Your task to perform on an android device: Show the shopping cart on bestbuy. Search for razer kraken on bestbuy, select the first entry, and add it to the cart. Image 0: 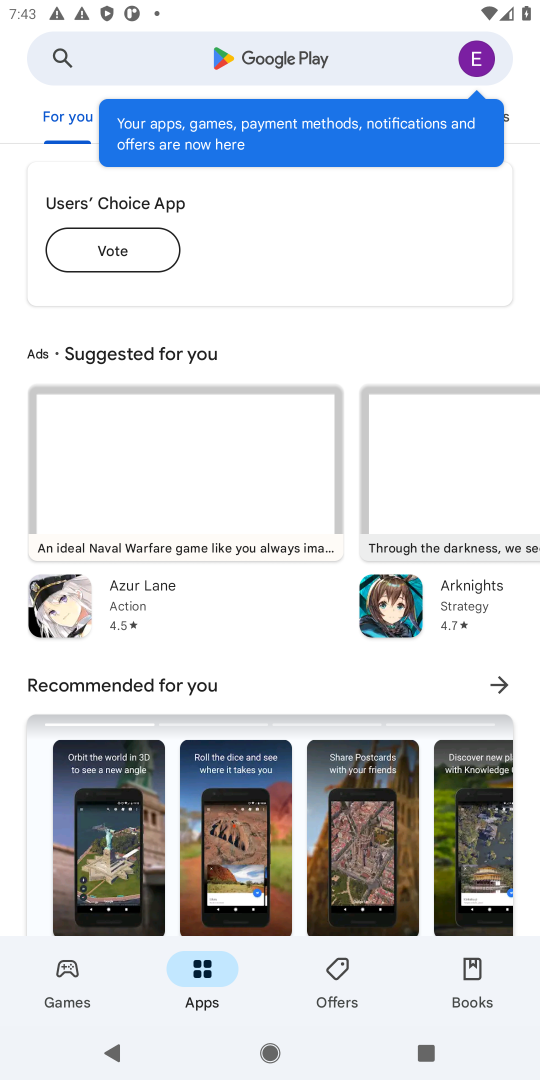
Step 0: press home button
Your task to perform on an android device: Show the shopping cart on bestbuy. Search for razer kraken on bestbuy, select the first entry, and add it to the cart. Image 1: 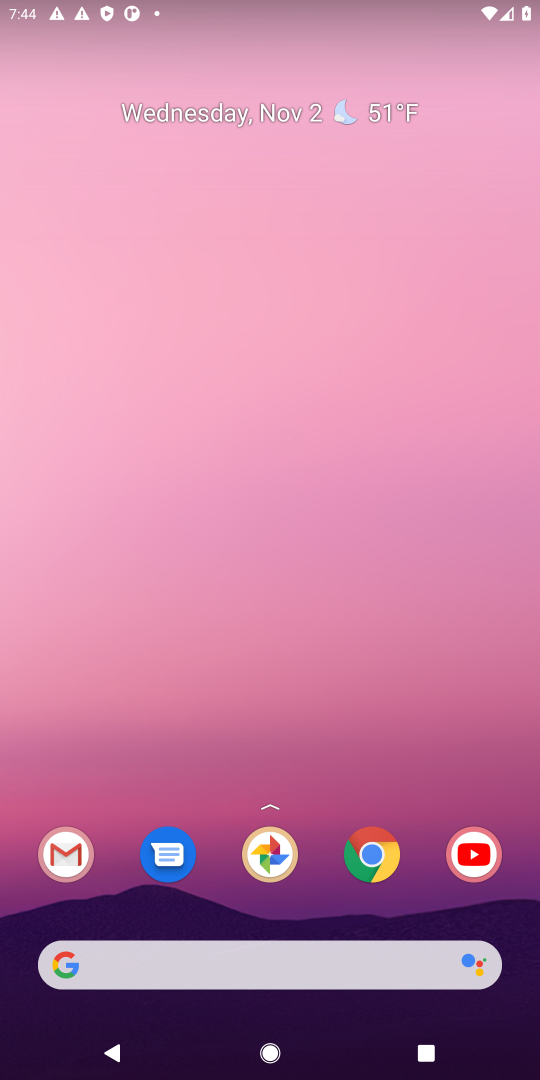
Step 1: click (374, 849)
Your task to perform on an android device: Show the shopping cart on bestbuy. Search for razer kraken on bestbuy, select the first entry, and add it to the cart. Image 2: 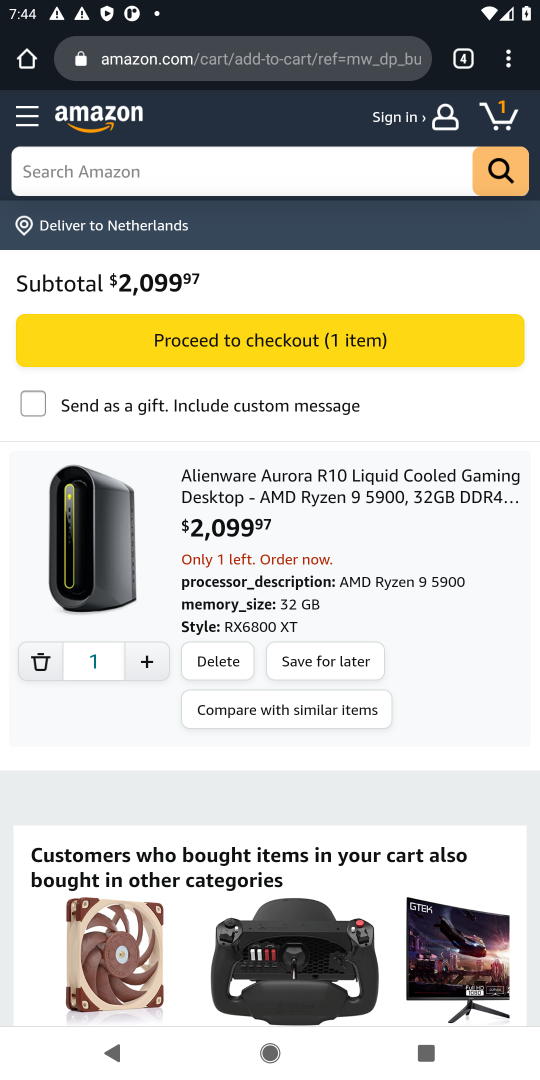
Step 2: click (462, 62)
Your task to perform on an android device: Show the shopping cart on bestbuy. Search for razer kraken on bestbuy, select the first entry, and add it to the cart. Image 3: 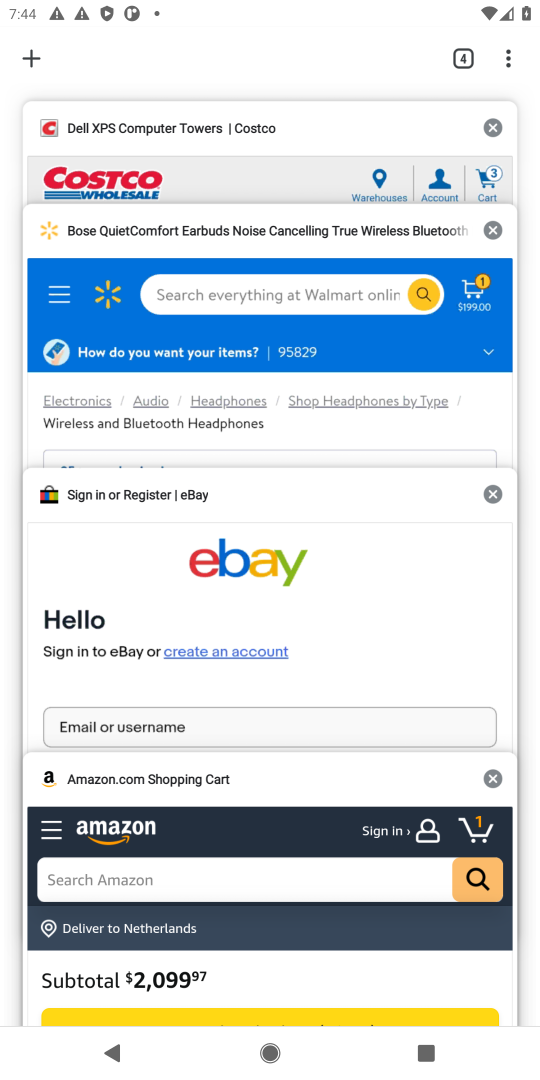
Step 3: click (27, 54)
Your task to perform on an android device: Show the shopping cart on bestbuy. Search for razer kraken on bestbuy, select the first entry, and add it to the cart. Image 4: 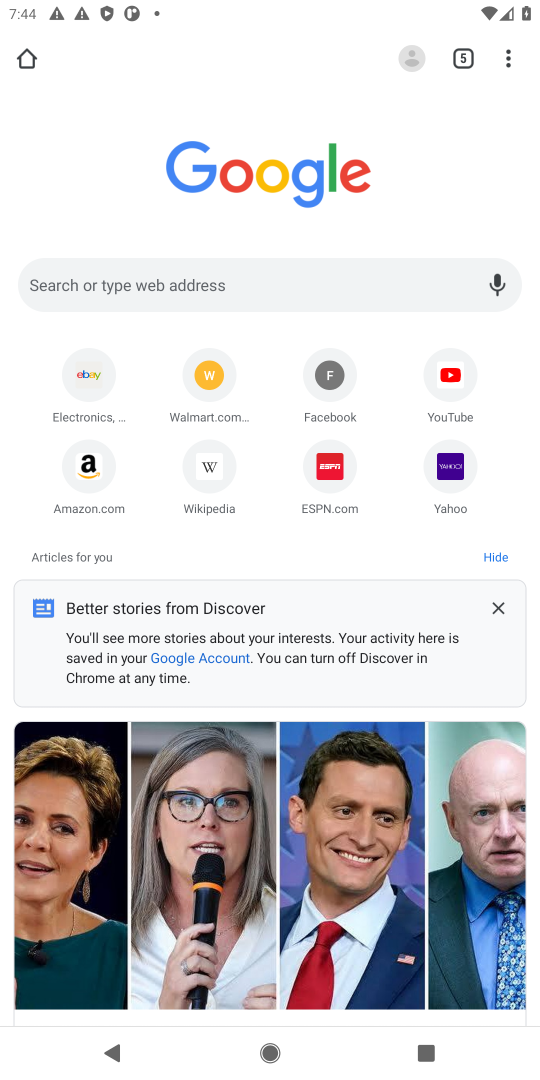
Step 4: click (258, 270)
Your task to perform on an android device: Show the shopping cart on bestbuy. Search for razer kraken on bestbuy, select the first entry, and add it to the cart. Image 5: 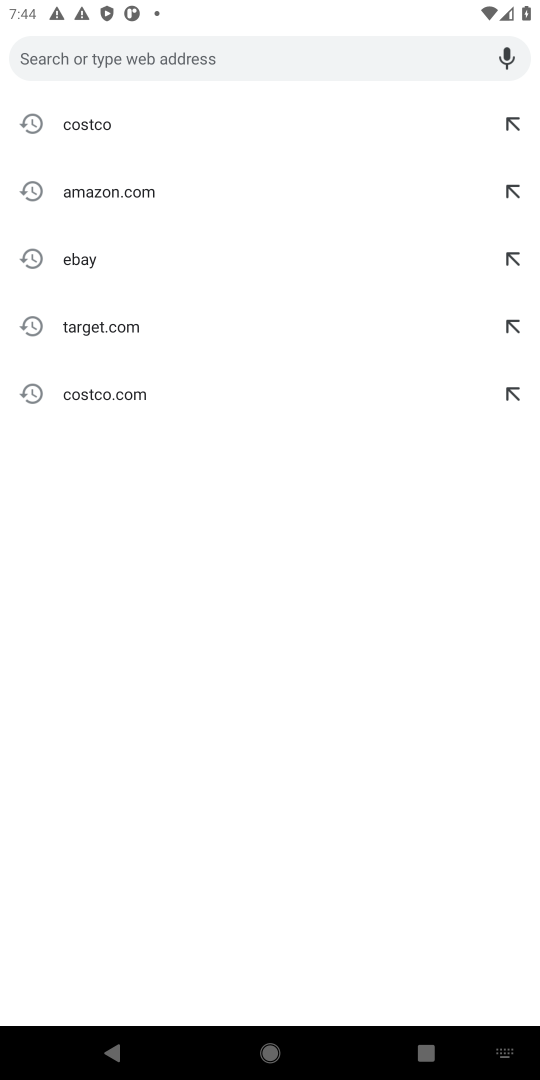
Step 5: type "bestbuy"
Your task to perform on an android device: Show the shopping cart on bestbuy. Search for razer kraken on bestbuy, select the first entry, and add it to the cart. Image 6: 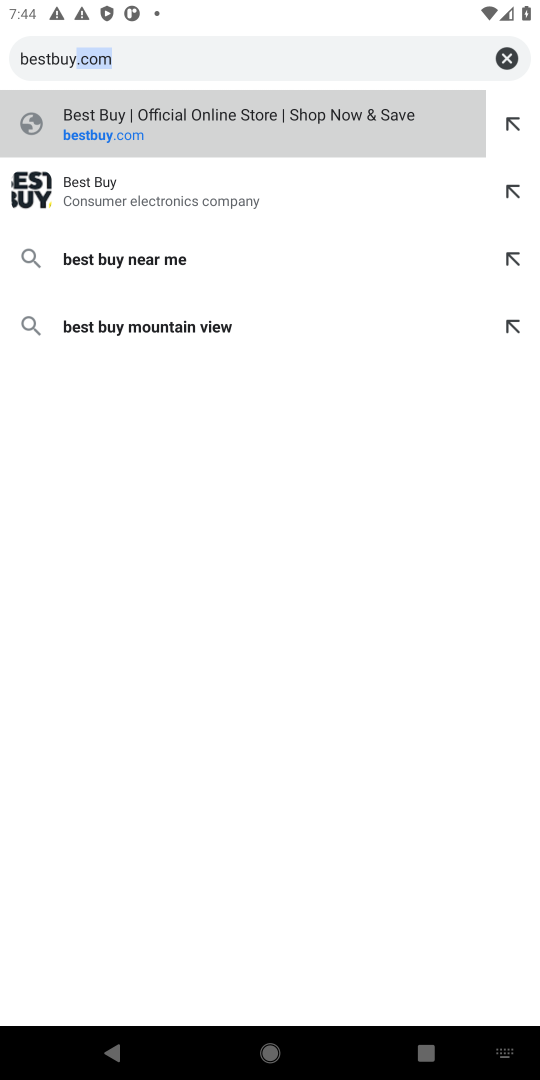
Step 6: click (83, 120)
Your task to perform on an android device: Show the shopping cart on bestbuy. Search for razer kraken on bestbuy, select the first entry, and add it to the cart. Image 7: 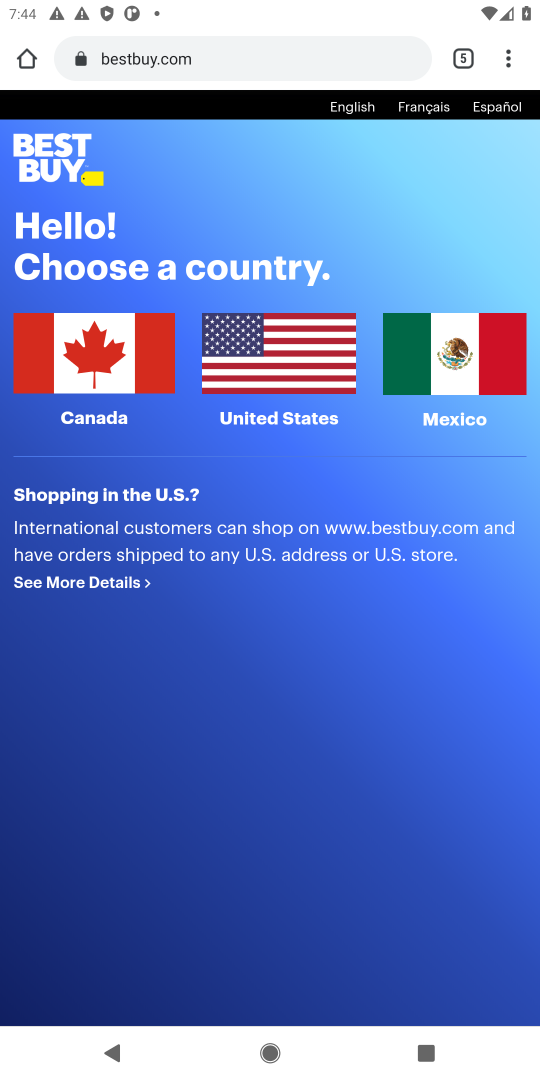
Step 7: click (285, 368)
Your task to perform on an android device: Show the shopping cart on bestbuy. Search for razer kraken on bestbuy, select the first entry, and add it to the cart. Image 8: 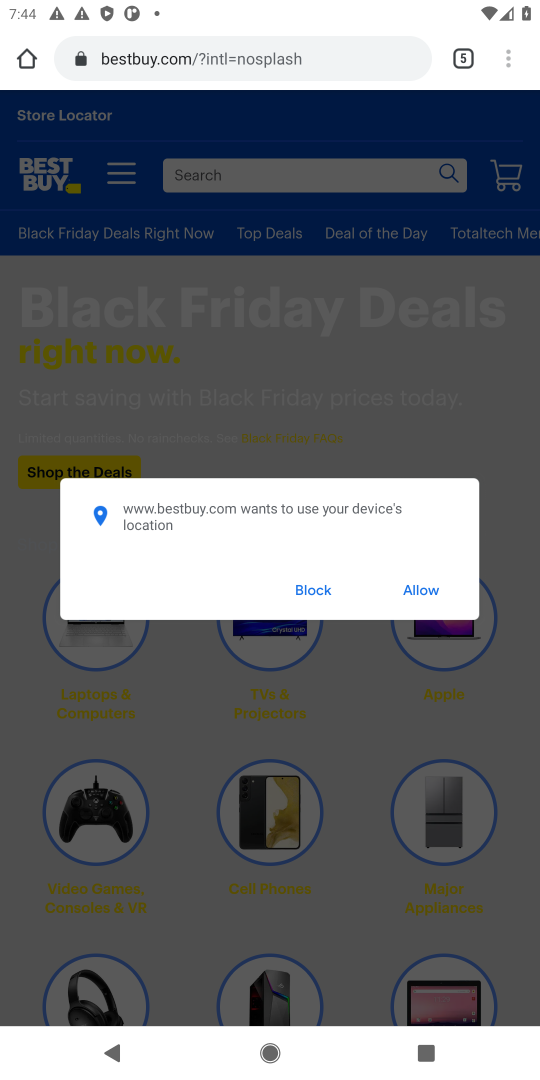
Step 8: click (305, 589)
Your task to perform on an android device: Show the shopping cart on bestbuy. Search for razer kraken on bestbuy, select the first entry, and add it to the cart. Image 9: 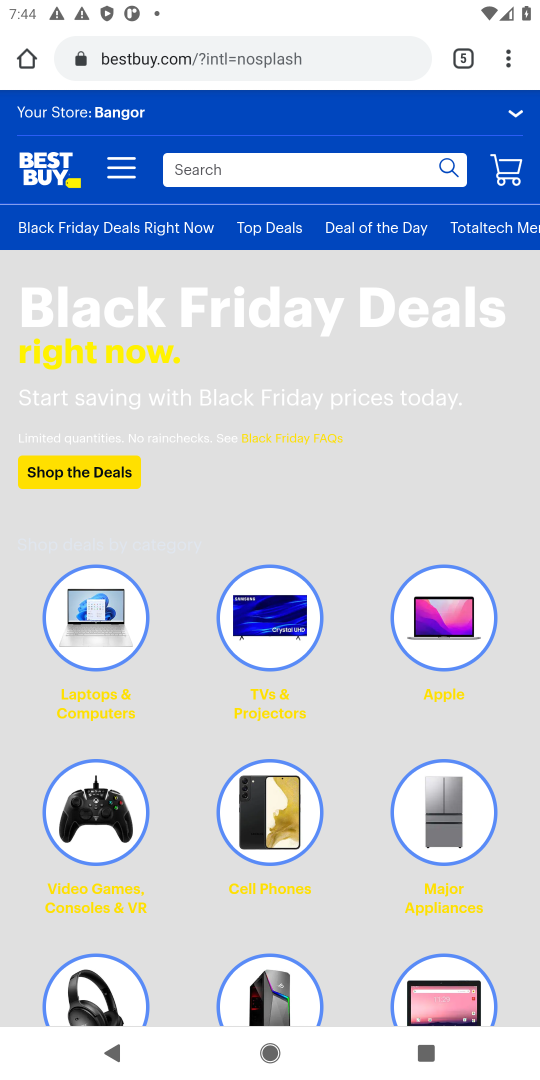
Step 9: click (307, 171)
Your task to perform on an android device: Show the shopping cart on bestbuy. Search for razer kraken on bestbuy, select the first entry, and add it to the cart. Image 10: 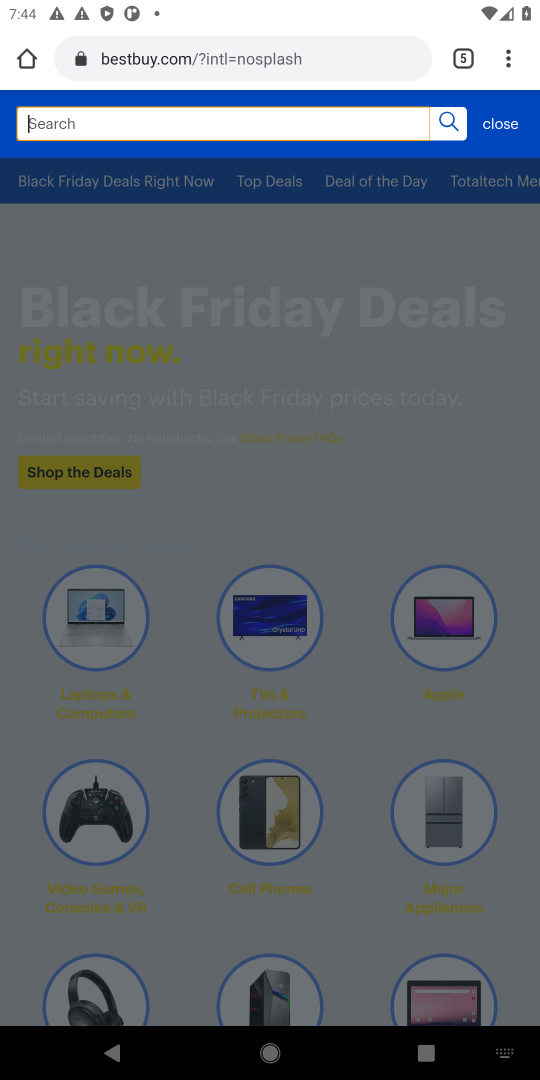
Step 10: type "razer kraken"
Your task to perform on an android device: Show the shopping cart on bestbuy. Search for razer kraken on bestbuy, select the first entry, and add it to the cart. Image 11: 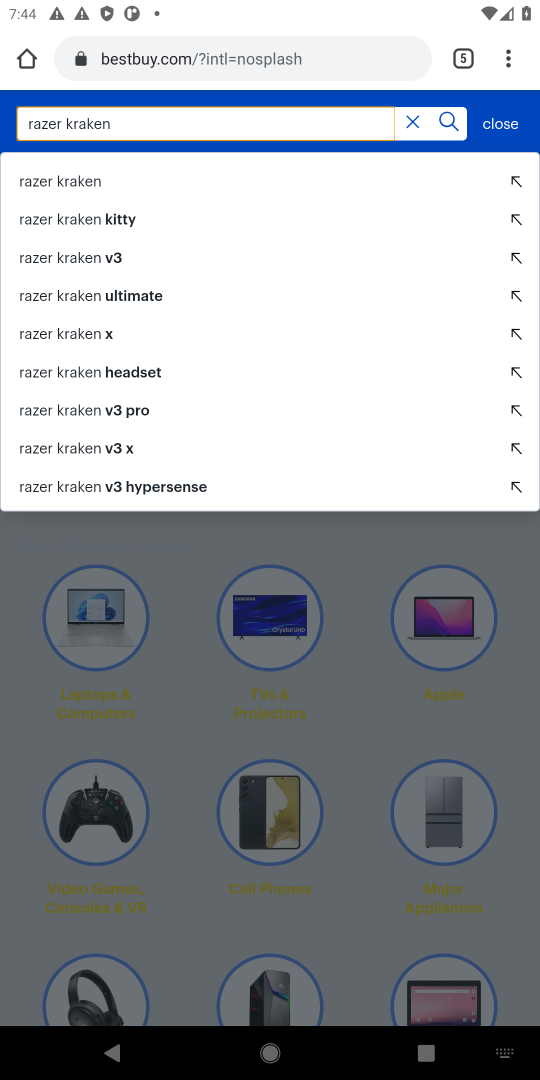
Step 11: click (47, 181)
Your task to perform on an android device: Show the shopping cart on bestbuy. Search for razer kraken on bestbuy, select the first entry, and add it to the cart. Image 12: 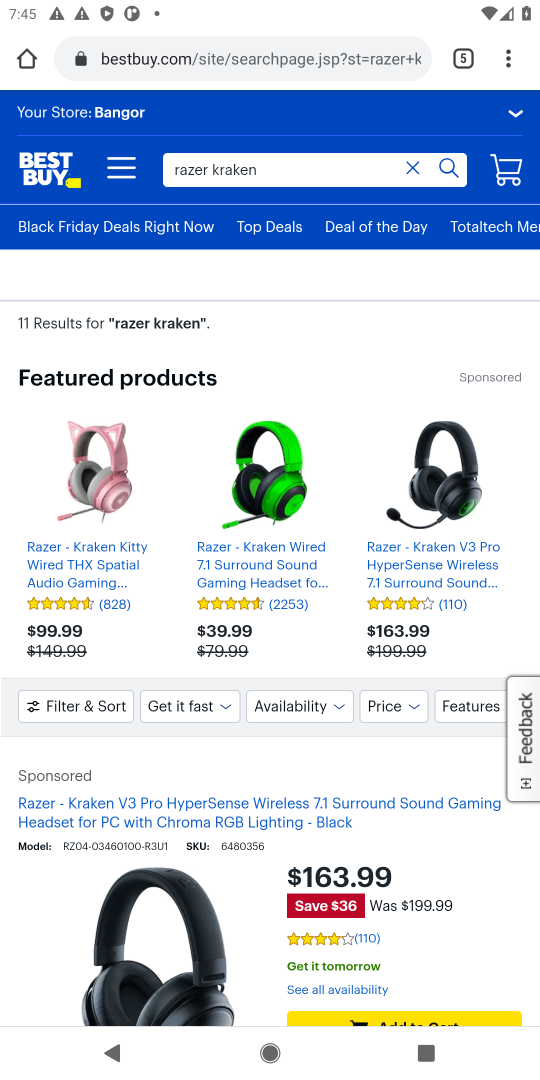
Step 12: drag from (424, 998) to (421, 649)
Your task to perform on an android device: Show the shopping cart on bestbuy. Search for razer kraken on bestbuy, select the first entry, and add it to the cart. Image 13: 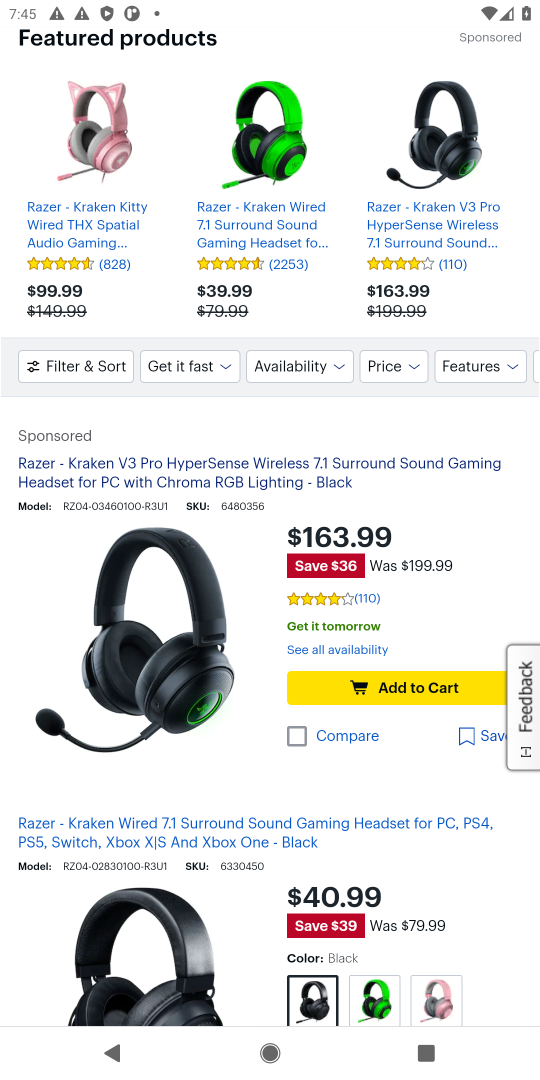
Step 13: click (417, 688)
Your task to perform on an android device: Show the shopping cart on bestbuy. Search for razer kraken on bestbuy, select the first entry, and add it to the cart. Image 14: 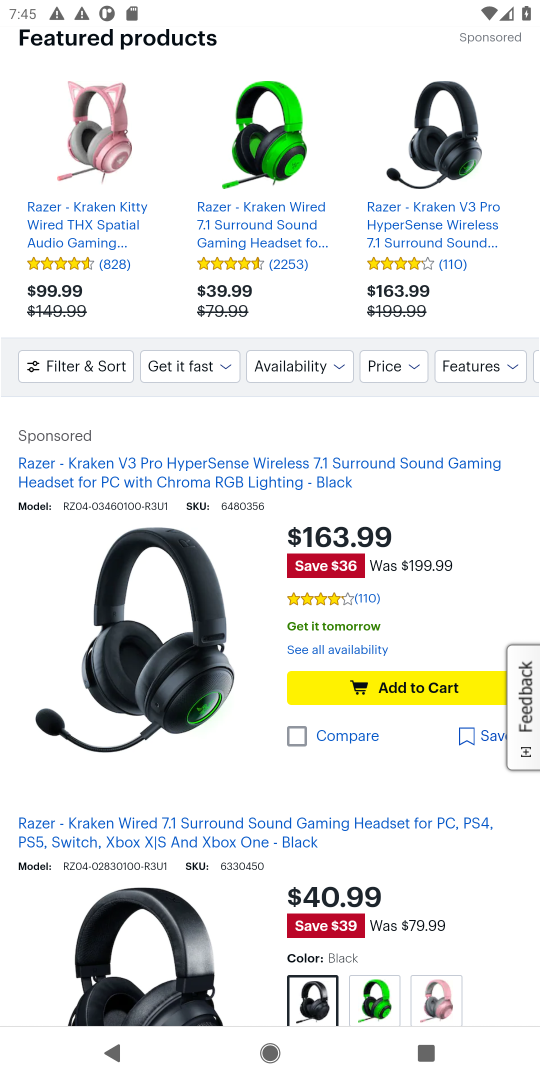
Step 14: task complete